Your task to perform on an android device: turn off smart reply in the gmail app Image 0: 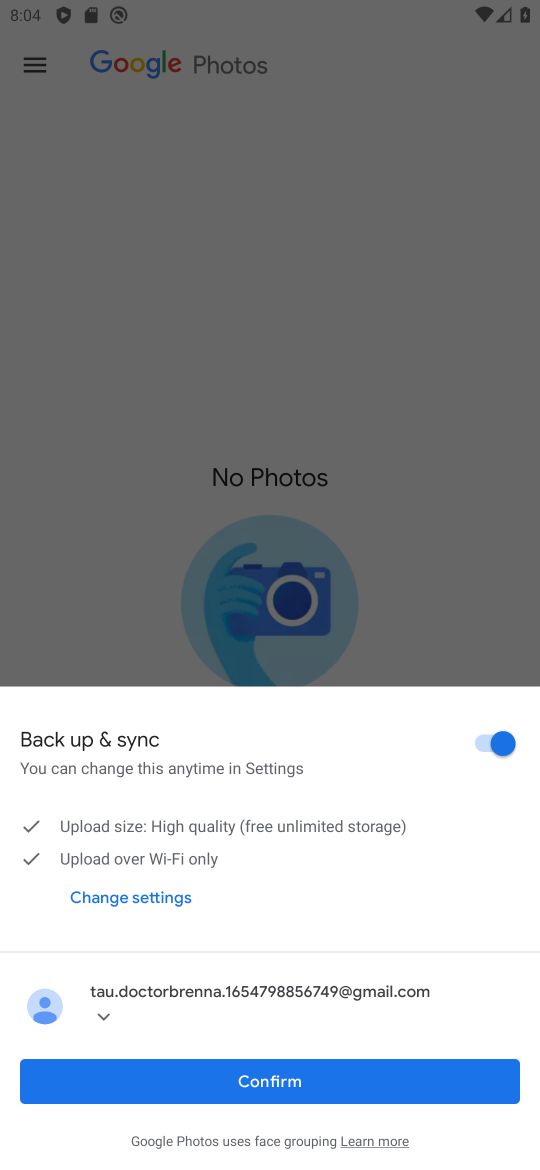
Step 0: press home button
Your task to perform on an android device: turn off smart reply in the gmail app Image 1: 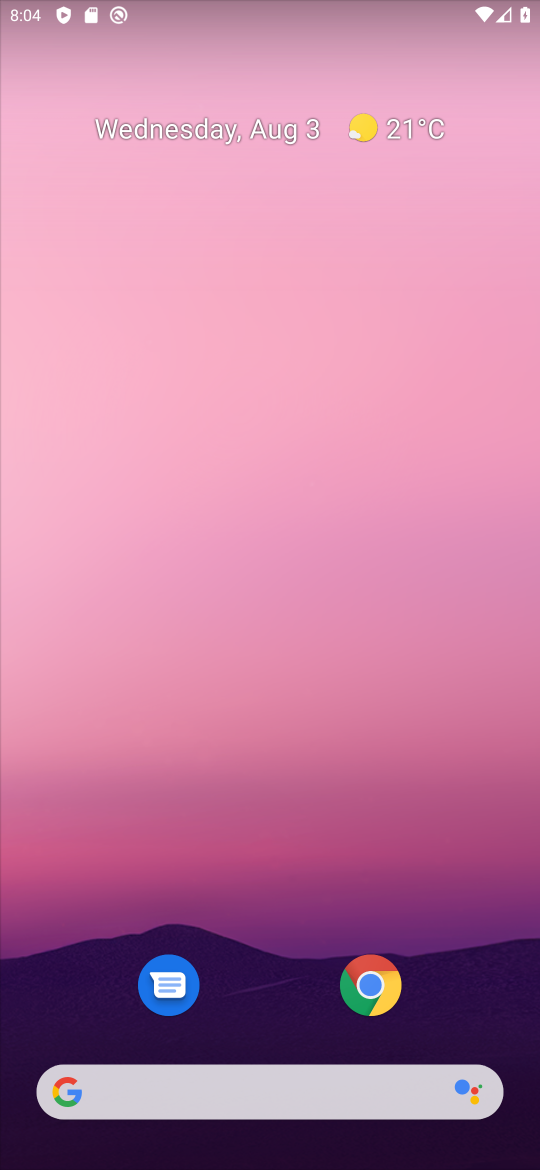
Step 1: drag from (273, 970) to (235, 215)
Your task to perform on an android device: turn off smart reply in the gmail app Image 2: 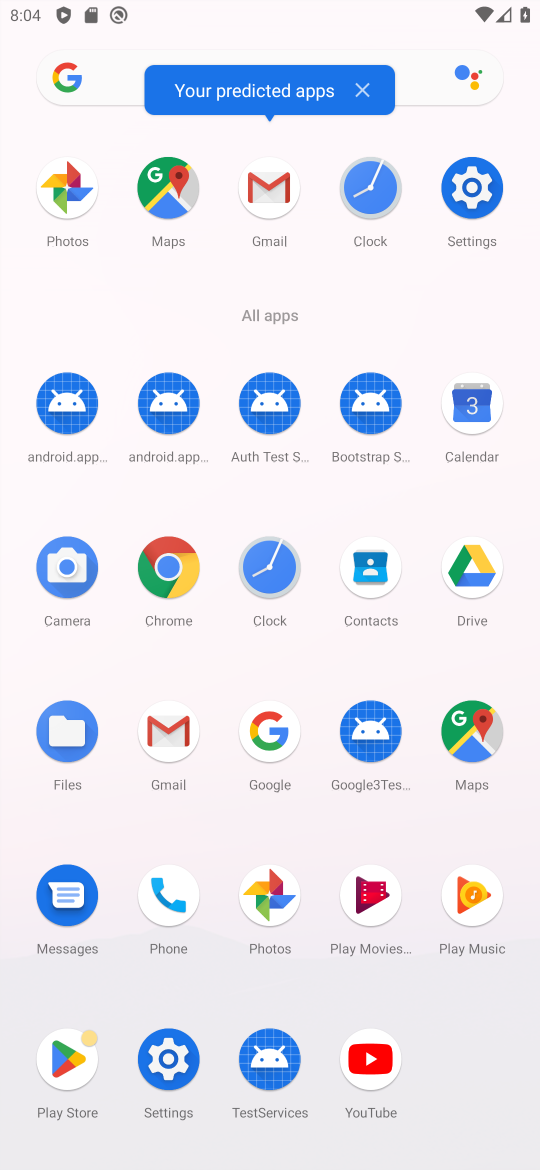
Step 2: click (271, 243)
Your task to perform on an android device: turn off smart reply in the gmail app Image 3: 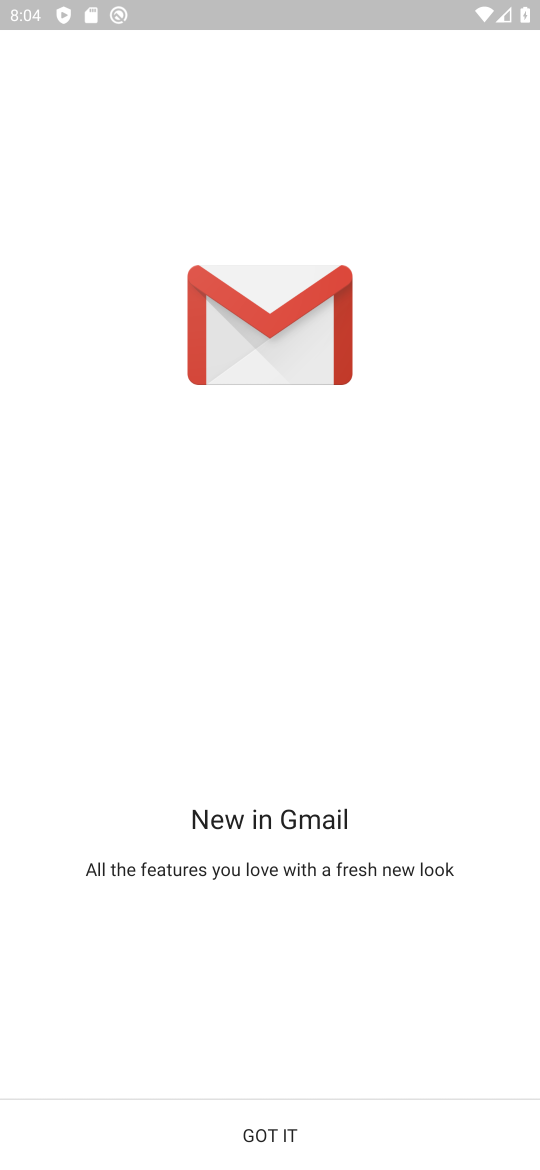
Step 3: click (257, 1149)
Your task to perform on an android device: turn off smart reply in the gmail app Image 4: 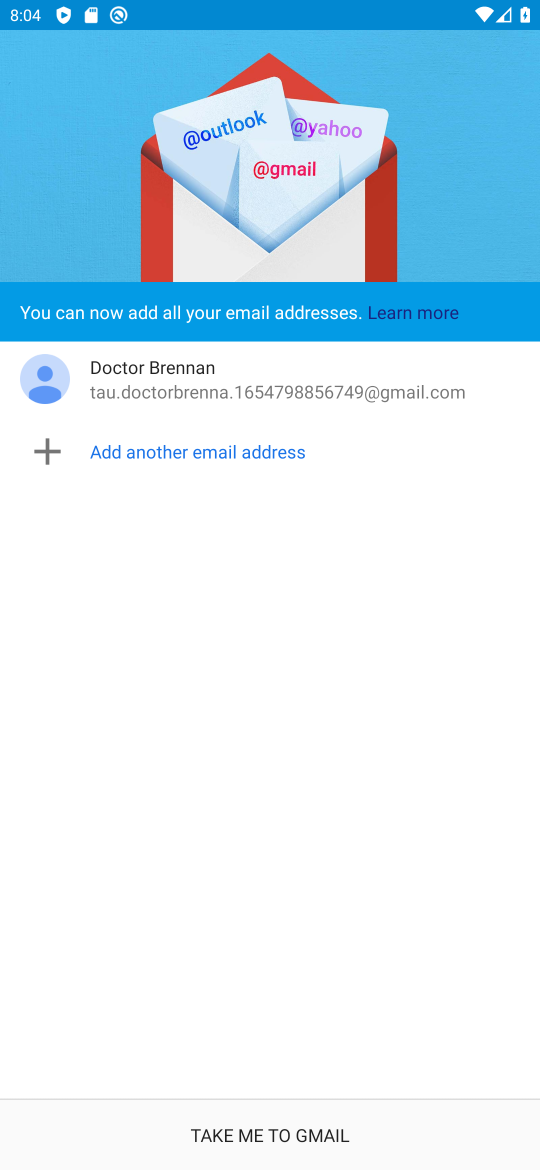
Step 4: click (270, 1130)
Your task to perform on an android device: turn off smart reply in the gmail app Image 5: 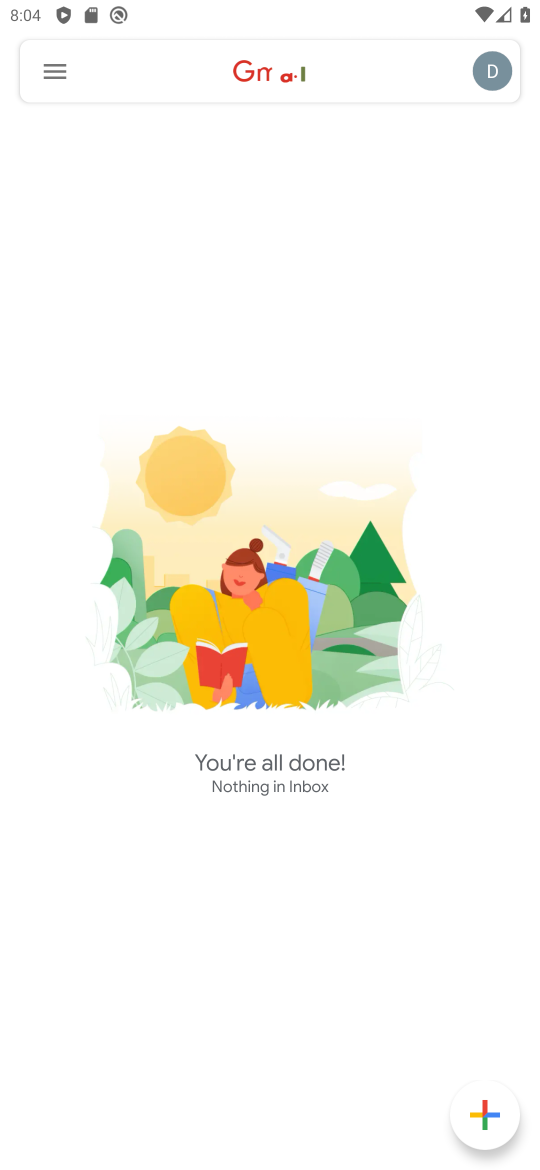
Step 5: click (33, 73)
Your task to perform on an android device: turn off smart reply in the gmail app Image 6: 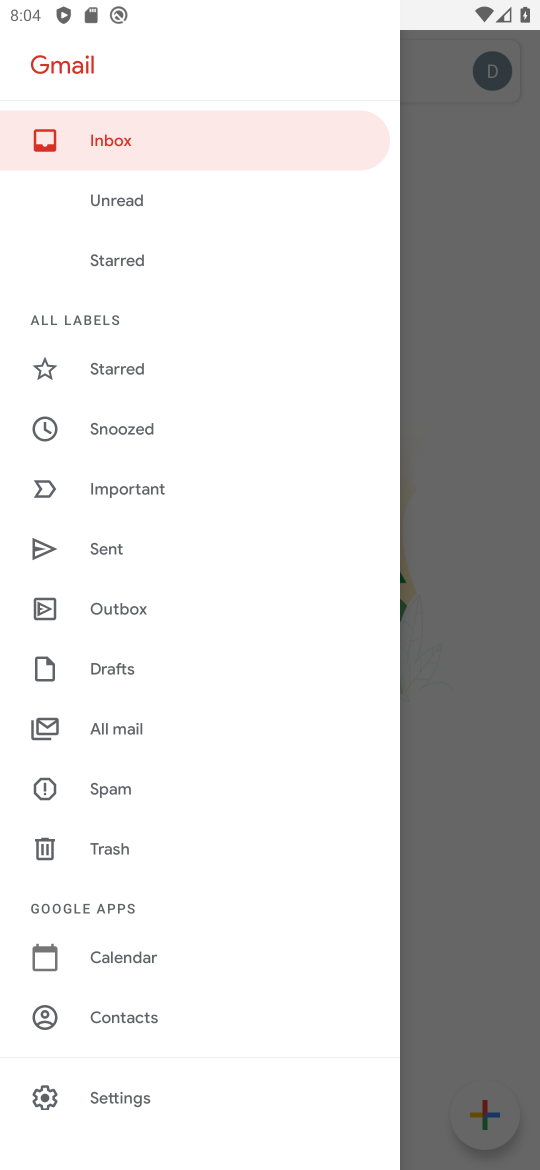
Step 6: click (167, 1102)
Your task to perform on an android device: turn off smart reply in the gmail app Image 7: 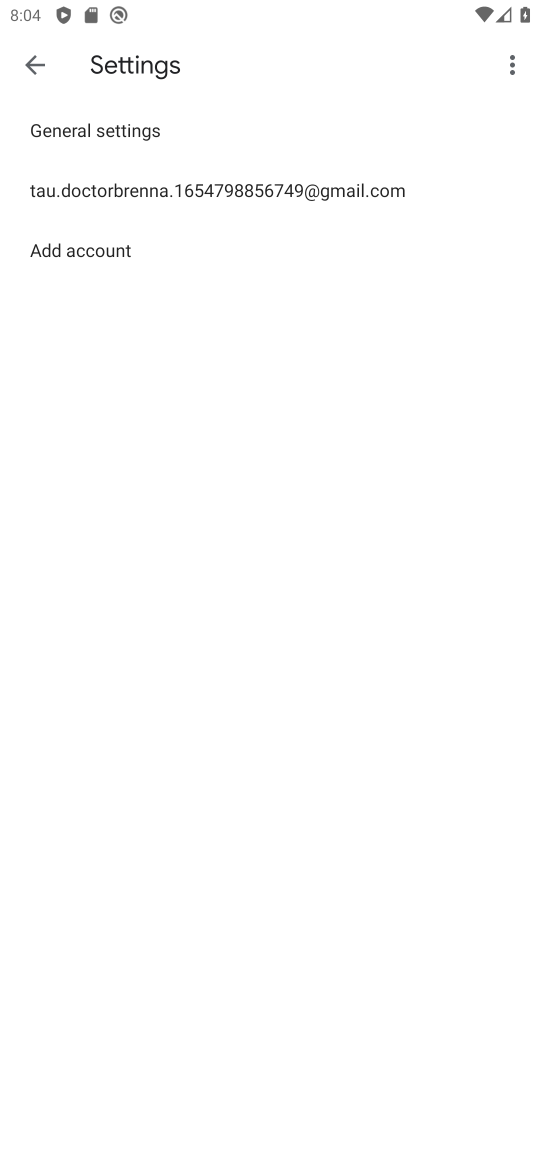
Step 7: click (190, 196)
Your task to perform on an android device: turn off smart reply in the gmail app Image 8: 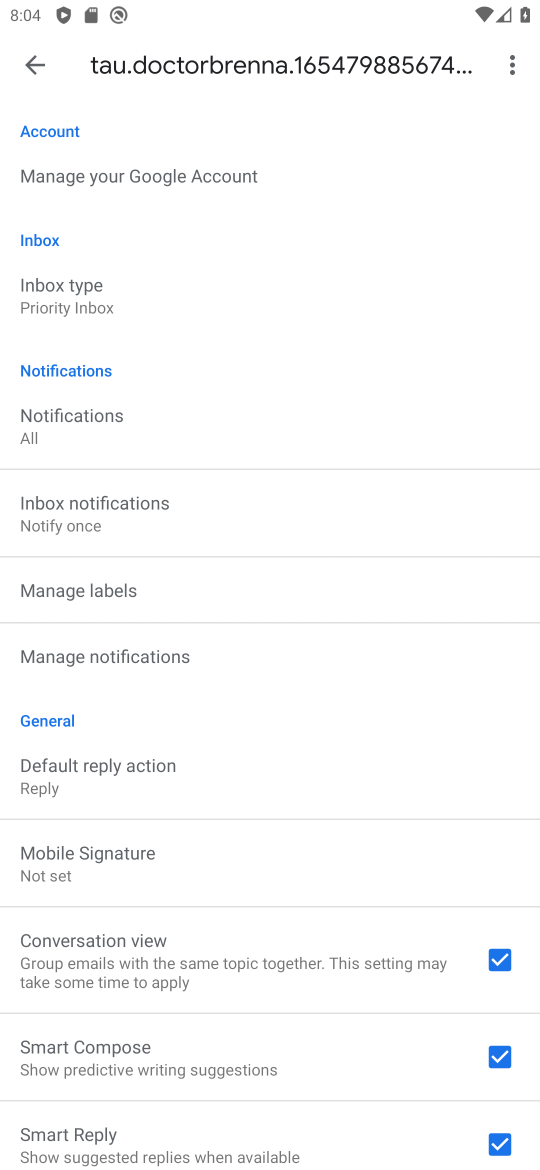
Step 8: drag from (245, 1021) to (255, 570)
Your task to perform on an android device: turn off smart reply in the gmail app Image 9: 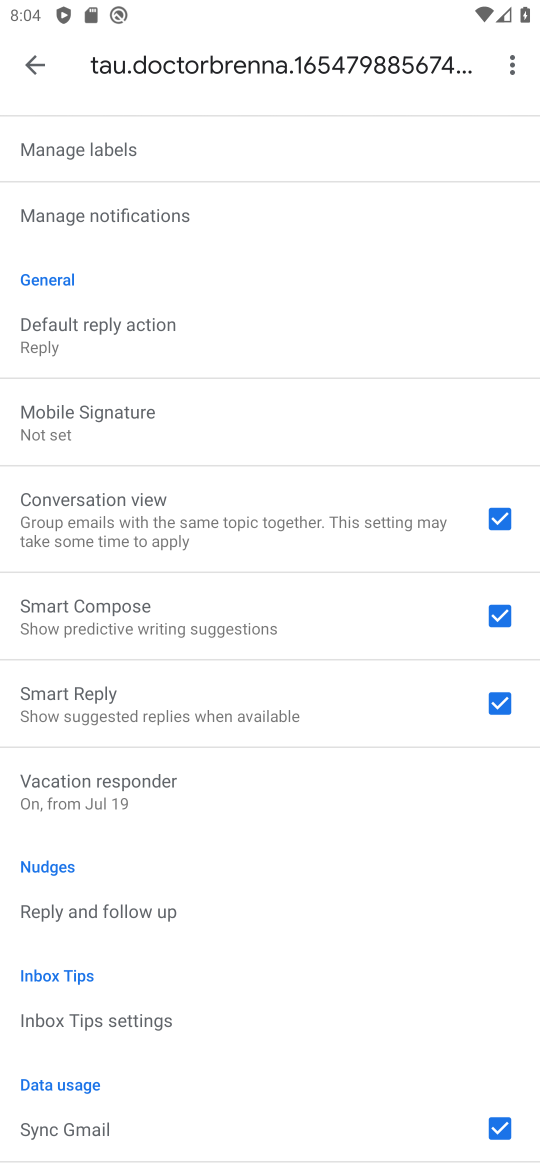
Step 9: click (492, 712)
Your task to perform on an android device: turn off smart reply in the gmail app Image 10: 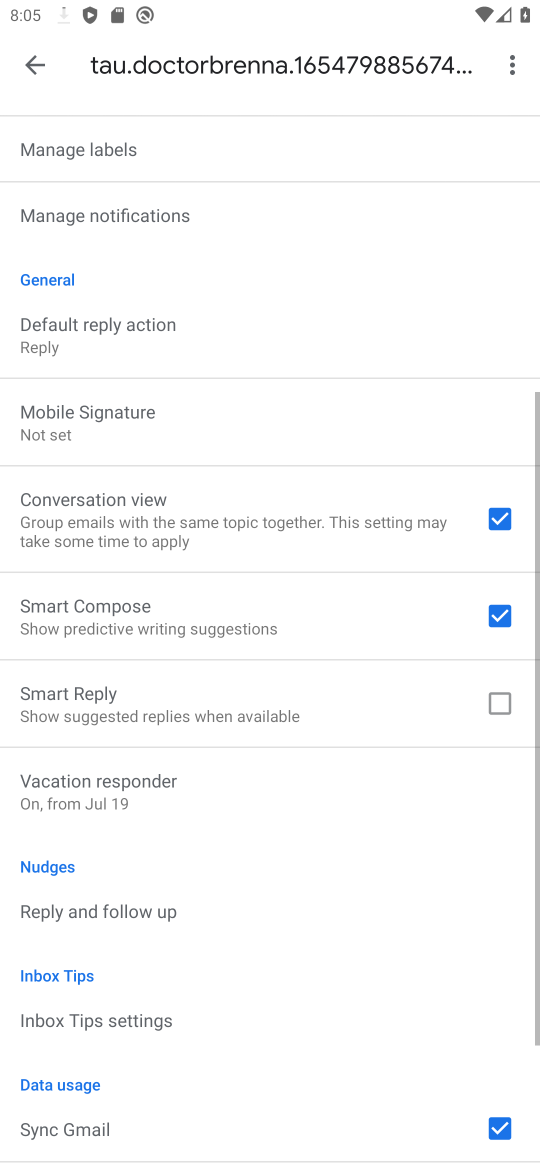
Step 10: task complete